Your task to perform on an android device: toggle pop-ups in chrome Image 0: 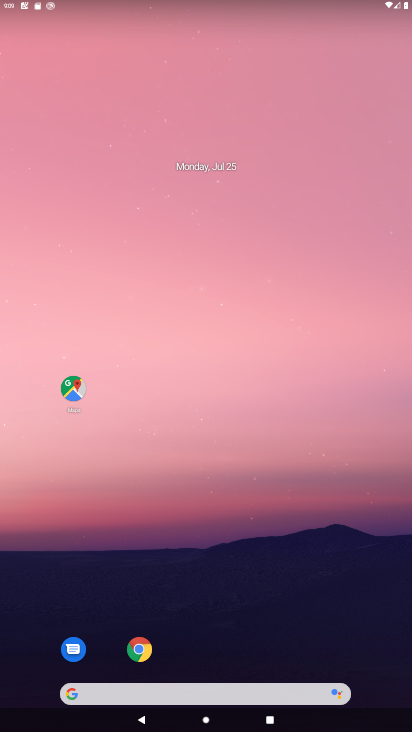
Step 0: click (134, 645)
Your task to perform on an android device: toggle pop-ups in chrome Image 1: 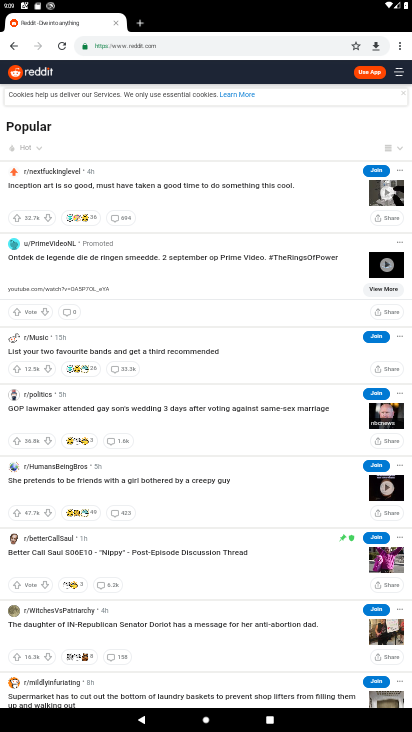
Step 1: click (396, 46)
Your task to perform on an android device: toggle pop-ups in chrome Image 2: 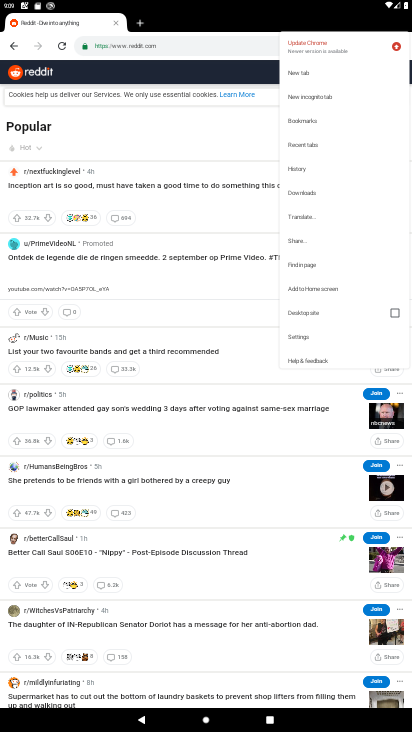
Step 2: click (306, 334)
Your task to perform on an android device: toggle pop-ups in chrome Image 3: 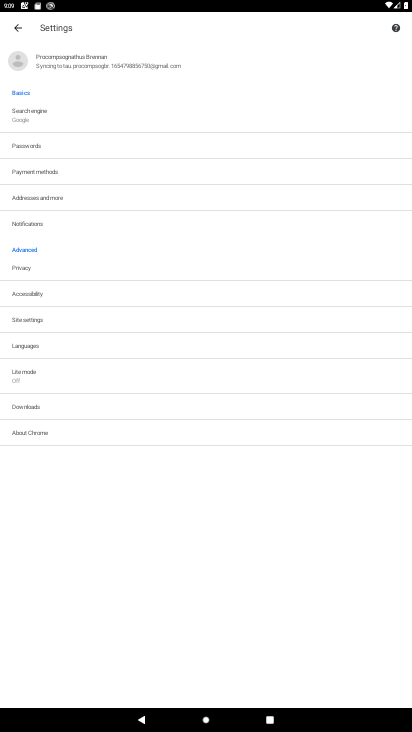
Step 3: click (45, 323)
Your task to perform on an android device: toggle pop-ups in chrome Image 4: 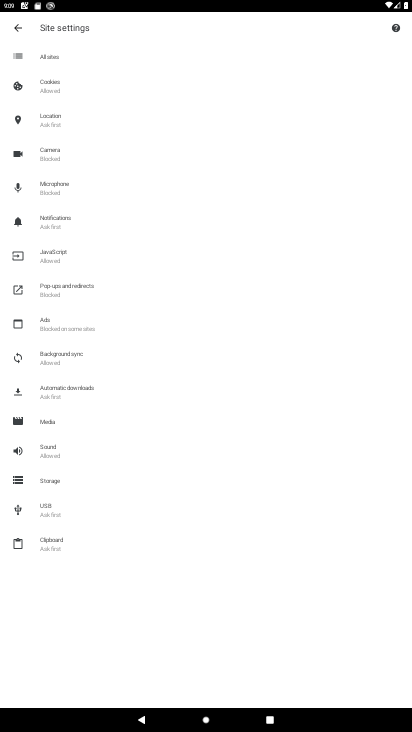
Step 4: click (35, 289)
Your task to perform on an android device: toggle pop-ups in chrome Image 5: 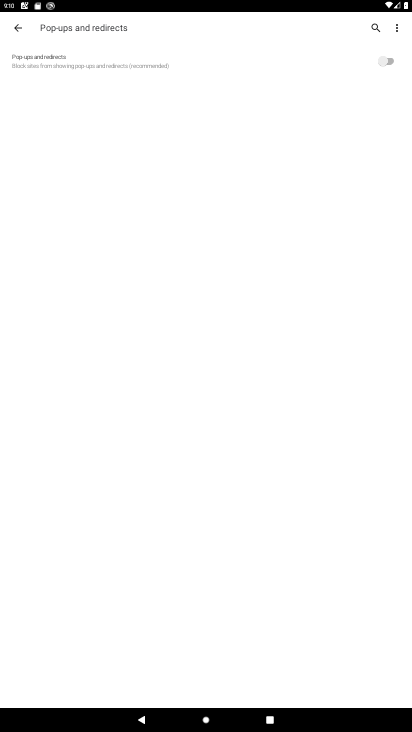
Step 5: click (383, 65)
Your task to perform on an android device: toggle pop-ups in chrome Image 6: 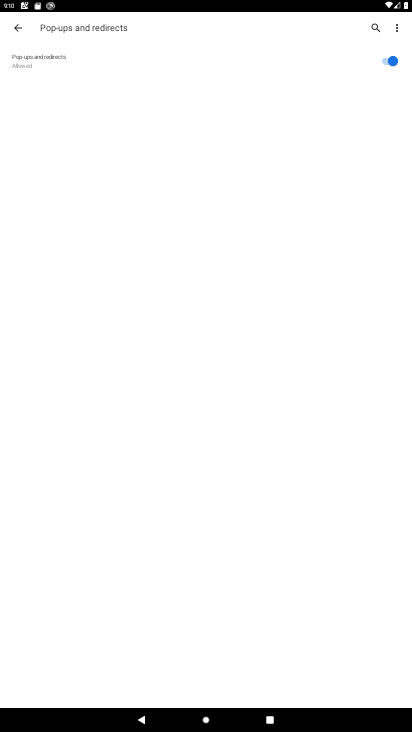
Step 6: task complete